Your task to perform on an android device: open chrome and create a bookmark for the current page Image 0: 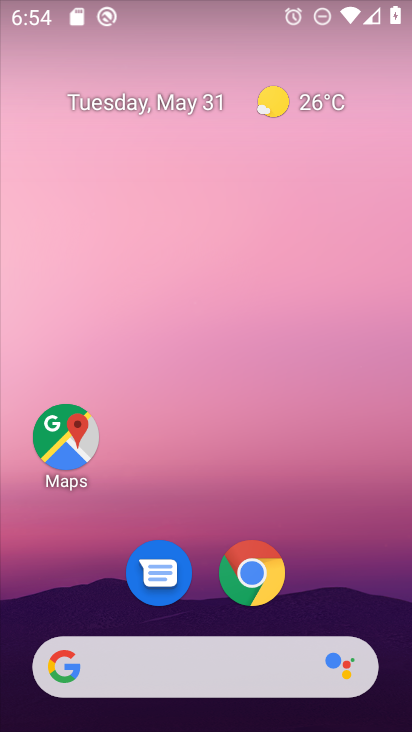
Step 0: drag from (391, 660) to (355, 86)
Your task to perform on an android device: open chrome and create a bookmark for the current page Image 1: 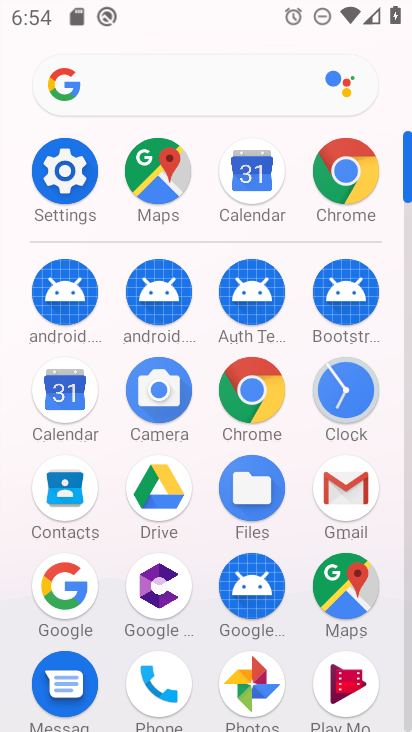
Step 1: click (367, 171)
Your task to perform on an android device: open chrome and create a bookmark for the current page Image 2: 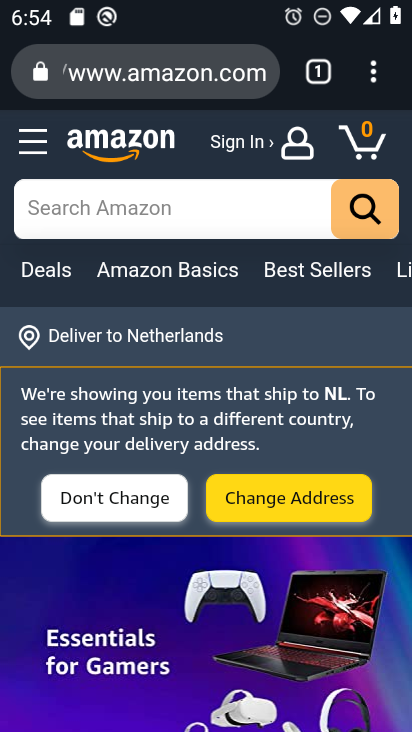
Step 2: click (376, 66)
Your task to perform on an android device: open chrome and create a bookmark for the current page Image 3: 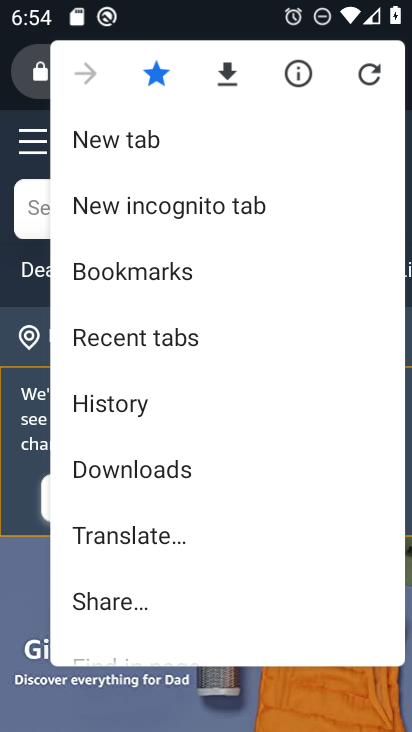
Step 3: task complete